Your task to perform on an android device: Go to Yahoo.com Image 0: 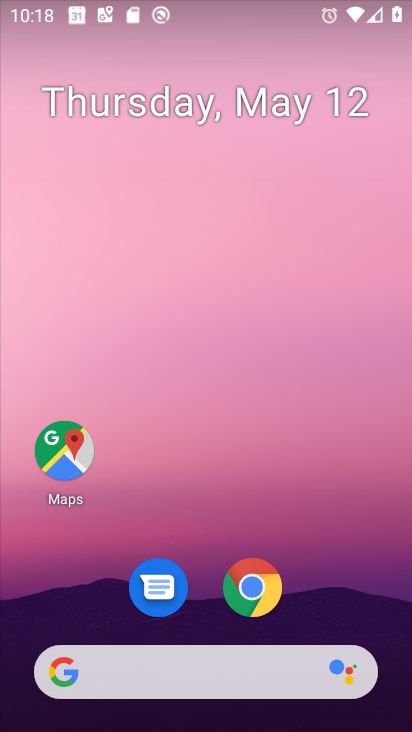
Step 0: drag from (383, 639) to (246, 97)
Your task to perform on an android device: Go to Yahoo.com Image 1: 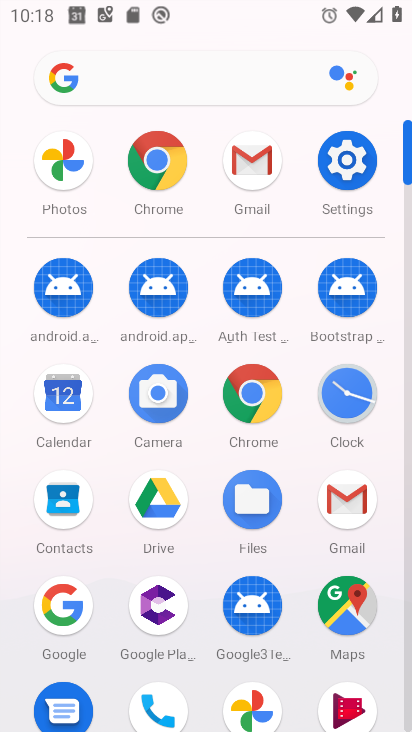
Step 1: click (153, 155)
Your task to perform on an android device: Go to Yahoo.com Image 2: 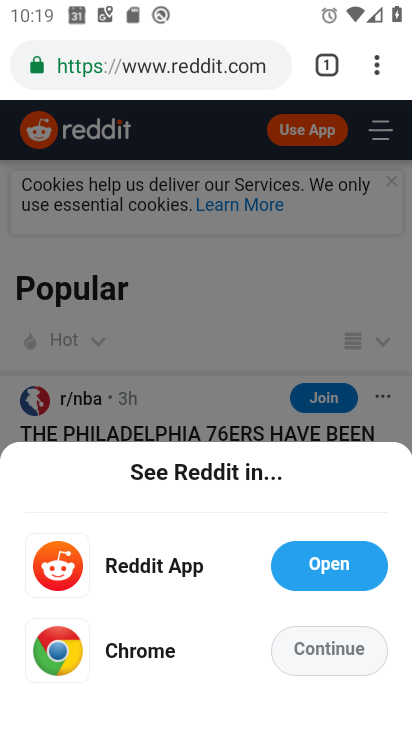
Step 2: press back button
Your task to perform on an android device: Go to Yahoo.com Image 3: 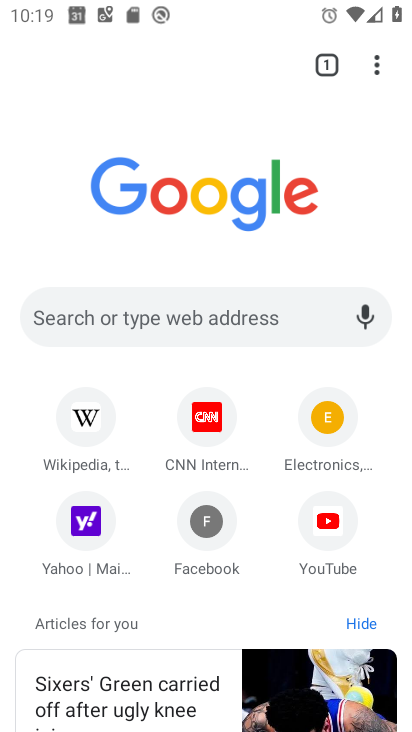
Step 3: click (96, 527)
Your task to perform on an android device: Go to Yahoo.com Image 4: 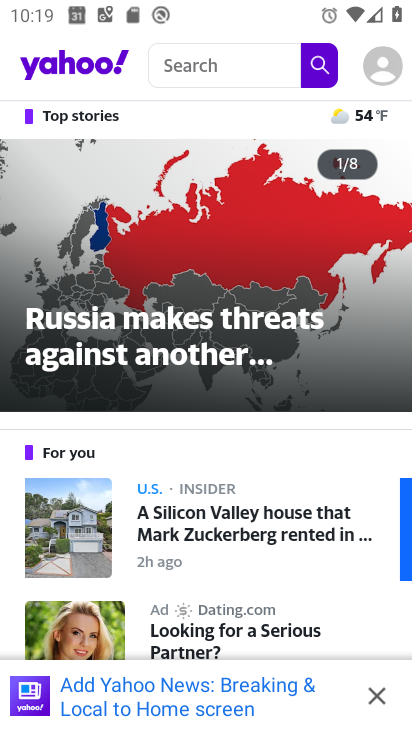
Step 4: task complete